Your task to perform on an android device: turn on translation in the chrome app Image 0: 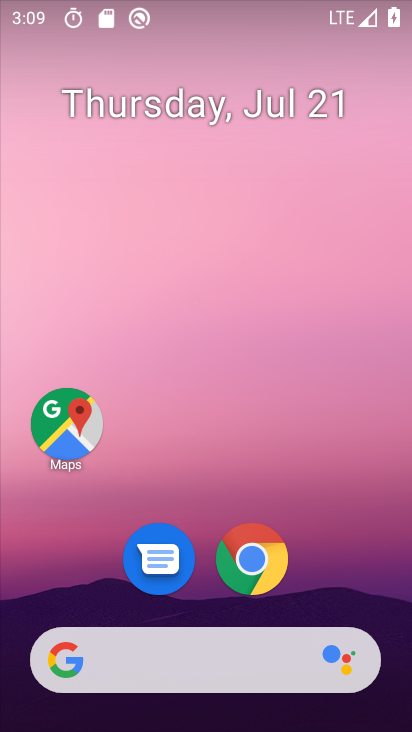
Step 0: drag from (365, 571) to (351, 69)
Your task to perform on an android device: turn on translation in the chrome app Image 1: 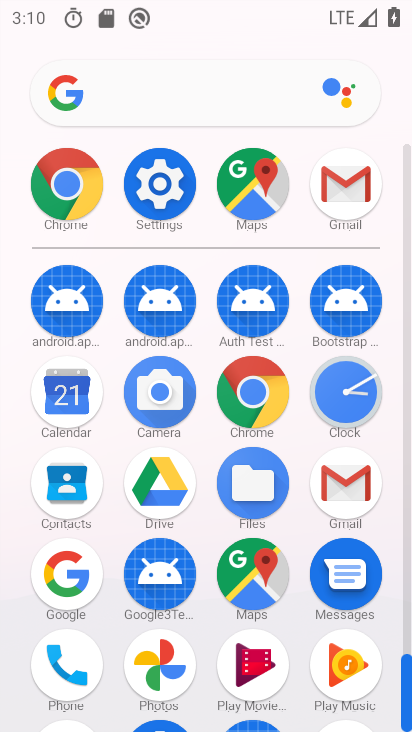
Step 1: click (265, 384)
Your task to perform on an android device: turn on translation in the chrome app Image 2: 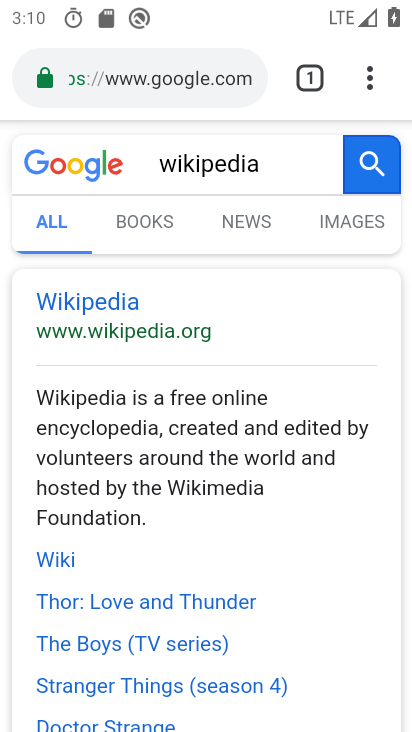
Step 2: click (369, 85)
Your task to perform on an android device: turn on translation in the chrome app Image 3: 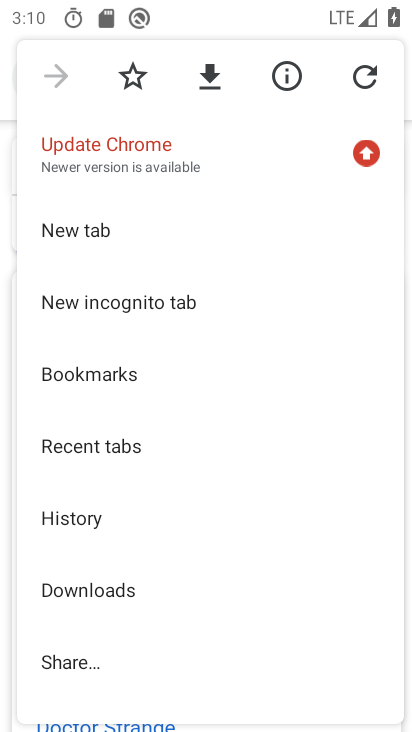
Step 3: drag from (332, 432) to (334, 358)
Your task to perform on an android device: turn on translation in the chrome app Image 4: 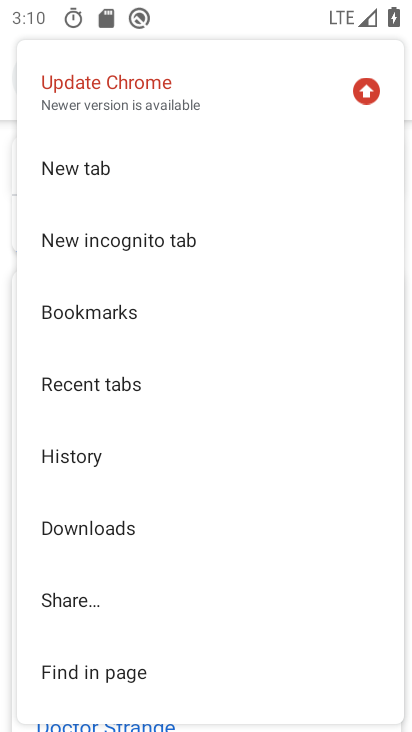
Step 4: drag from (334, 465) to (330, 405)
Your task to perform on an android device: turn on translation in the chrome app Image 5: 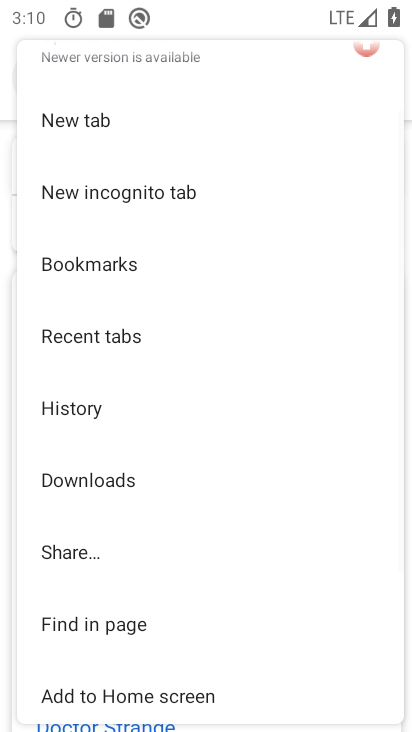
Step 5: drag from (331, 472) to (332, 409)
Your task to perform on an android device: turn on translation in the chrome app Image 6: 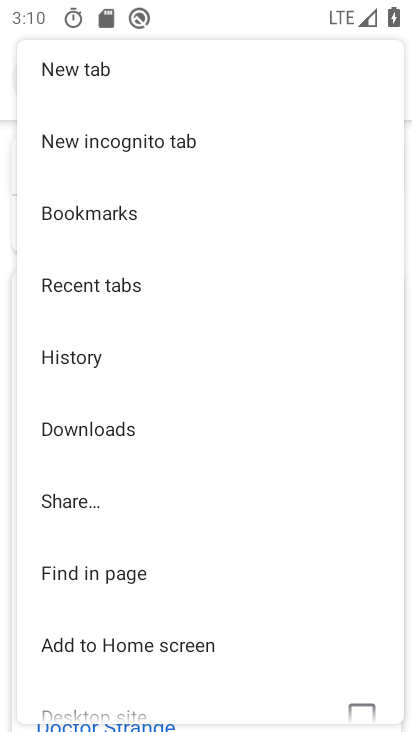
Step 6: drag from (341, 471) to (341, 419)
Your task to perform on an android device: turn on translation in the chrome app Image 7: 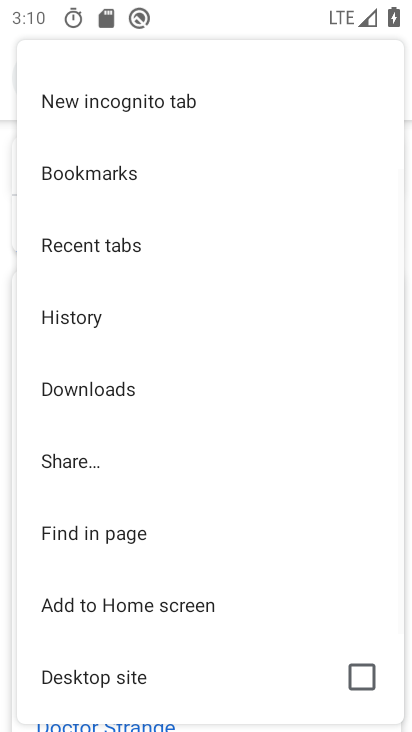
Step 7: drag from (322, 478) to (321, 413)
Your task to perform on an android device: turn on translation in the chrome app Image 8: 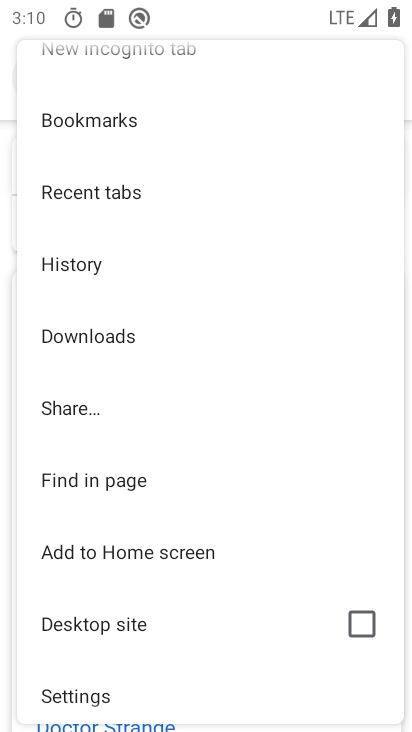
Step 8: drag from (304, 490) to (305, 425)
Your task to perform on an android device: turn on translation in the chrome app Image 9: 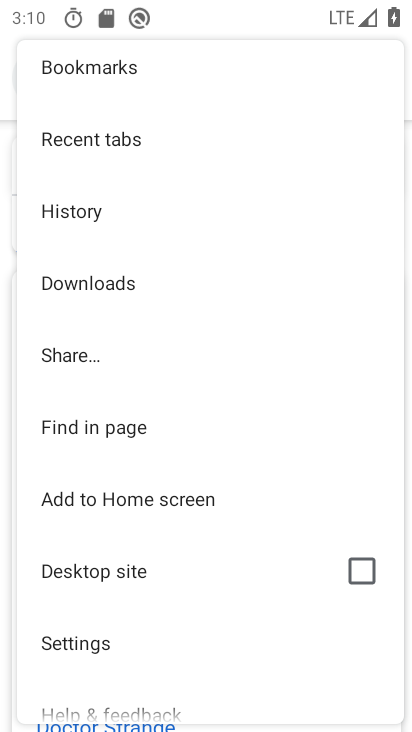
Step 9: drag from (282, 503) to (285, 430)
Your task to perform on an android device: turn on translation in the chrome app Image 10: 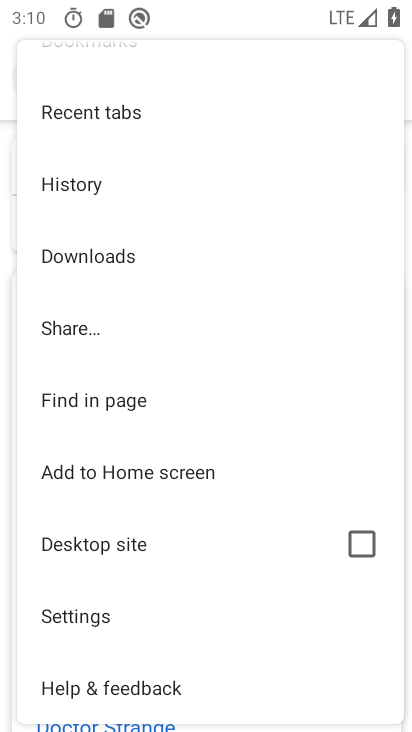
Step 10: click (242, 615)
Your task to perform on an android device: turn on translation in the chrome app Image 11: 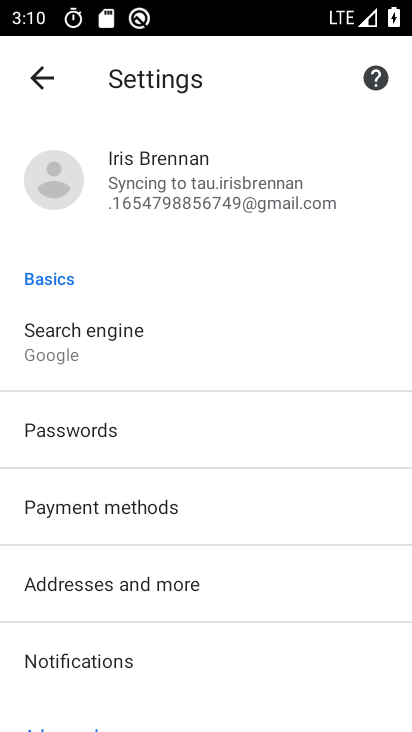
Step 11: drag from (313, 539) to (314, 454)
Your task to perform on an android device: turn on translation in the chrome app Image 12: 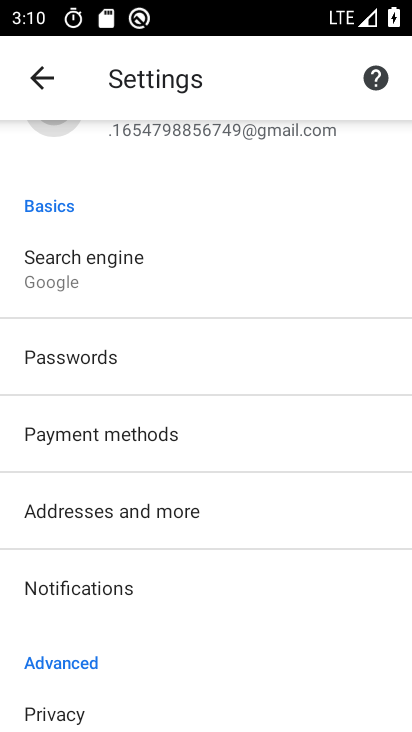
Step 12: drag from (305, 521) to (305, 470)
Your task to perform on an android device: turn on translation in the chrome app Image 13: 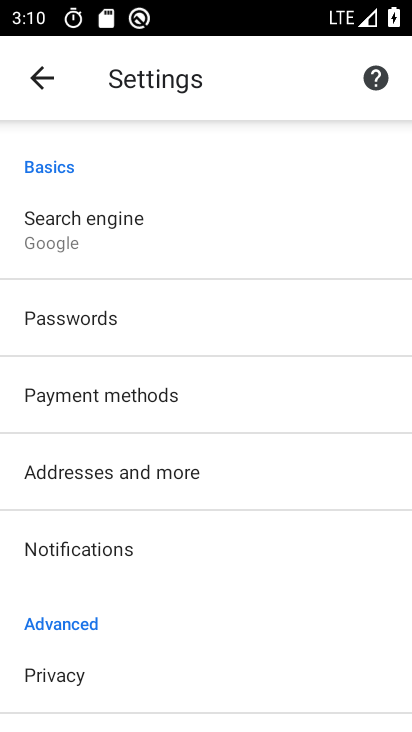
Step 13: drag from (307, 518) to (316, 413)
Your task to perform on an android device: turn on translation in the chrome app Image 14: 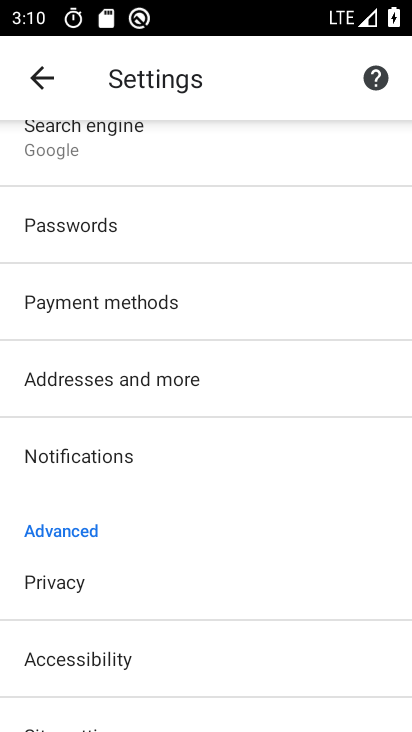
Step 14: drag from (316, 504) to (318, 419)
Your task to perform on an android device: turn on translation in the chrome app Image 15: 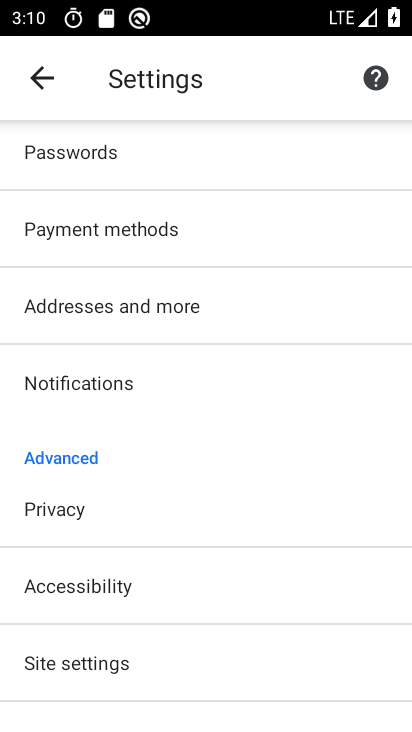
Step 15: drag from (315, 516) to (315, 400)
Your task to perform on an android device: turn on translation in the chrome app Image 16: 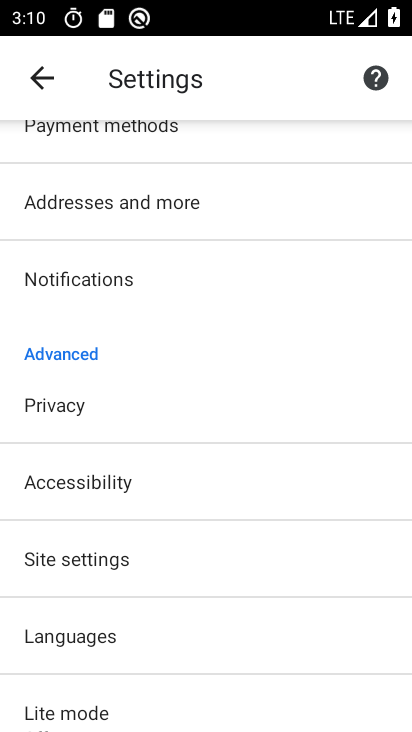
Step 16: drag from (326, 542) to (329, 433)
Your task to perform on an android device: turn on translation in the chrome app Image 17: 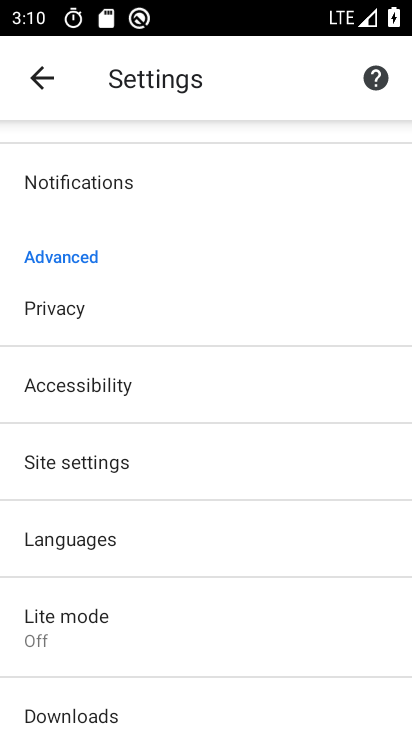
Step 17: click (288, 547)
Your task to perform on an android device: turn on translation in the chrome app Image 18: 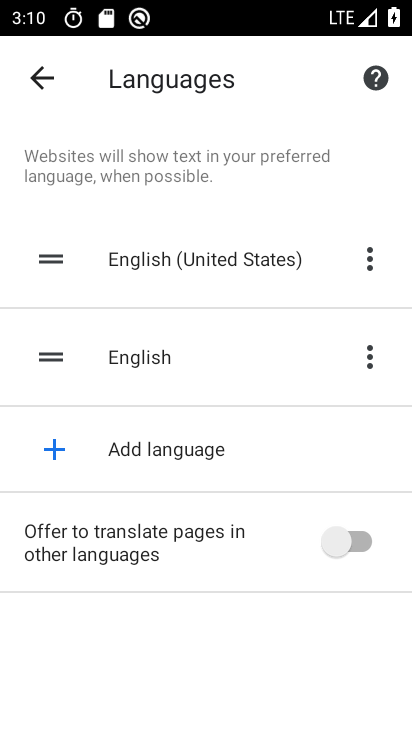
Step 18: click (322, 541)
Your task to perform on an android device: turn on translation in the chrome app Image 19: 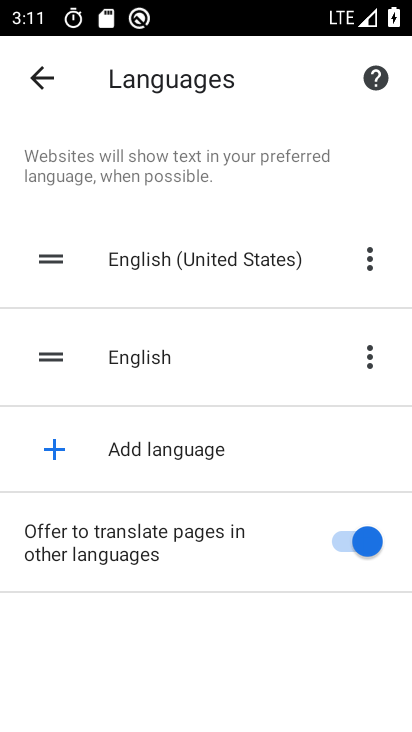
Step 19: task complete